Your task to perform on an android device: Check the news Image 0: 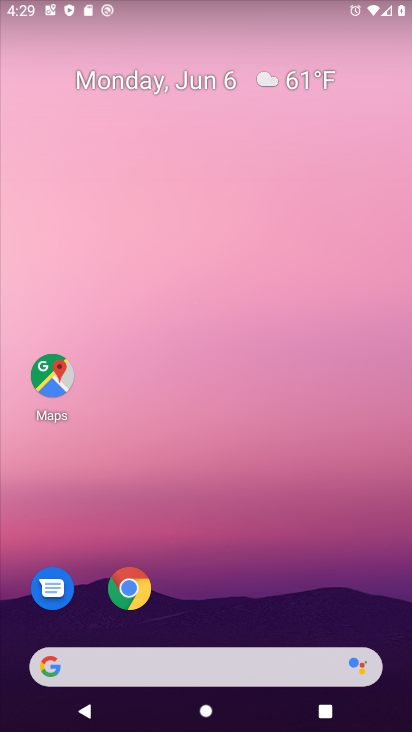
Step 0: click (282, 667)
Your task to perform on an android device: Check the news Image 1: 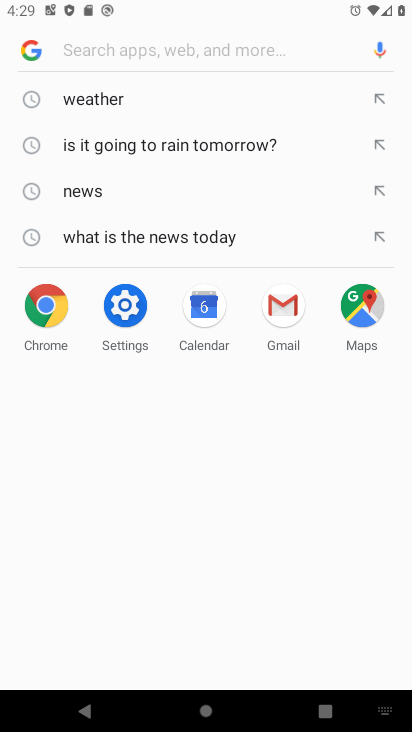
Step 1: click (72, 197)
Your task to perform on an android device: Check the news Image 2: 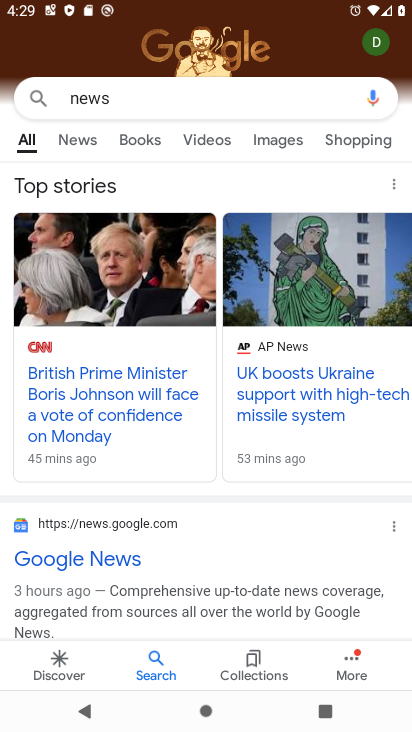
Step 2: task complete